Your task to perform on an android device: Open wifi settings Image 0: 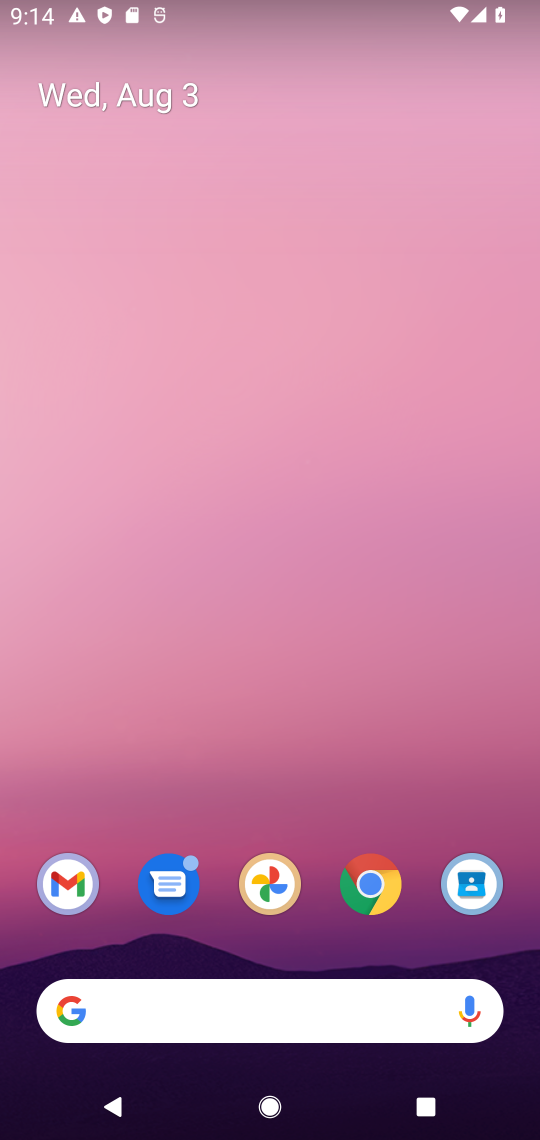
Step 0: press home button
Your task to perform on an android device: Open wifi settings Image 1: 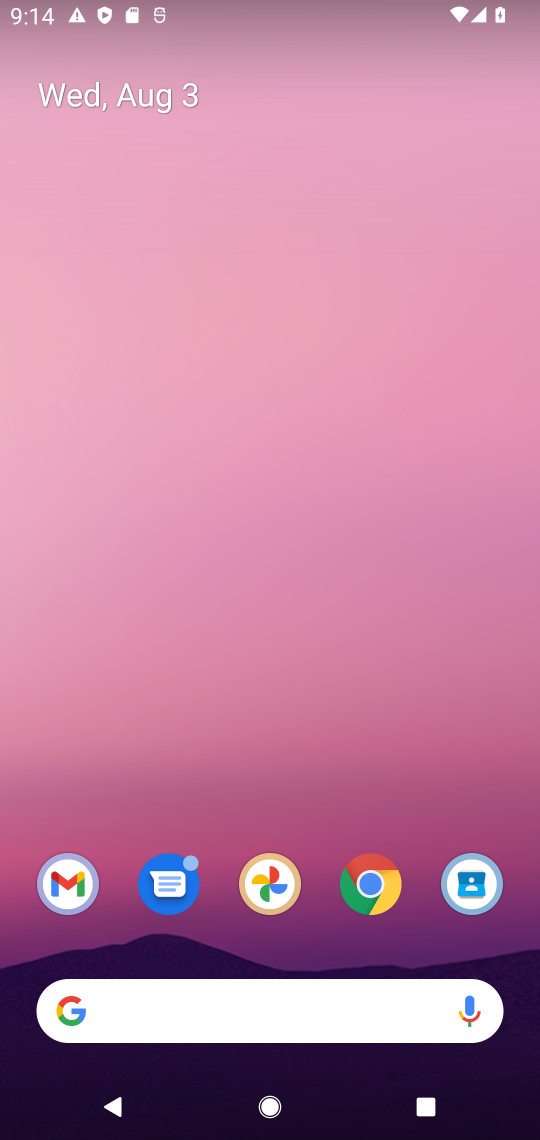
Step 1: drag from (482, 40) to (371, 1106)
Your task to perform on an android device: Open wifi settings Image 2: 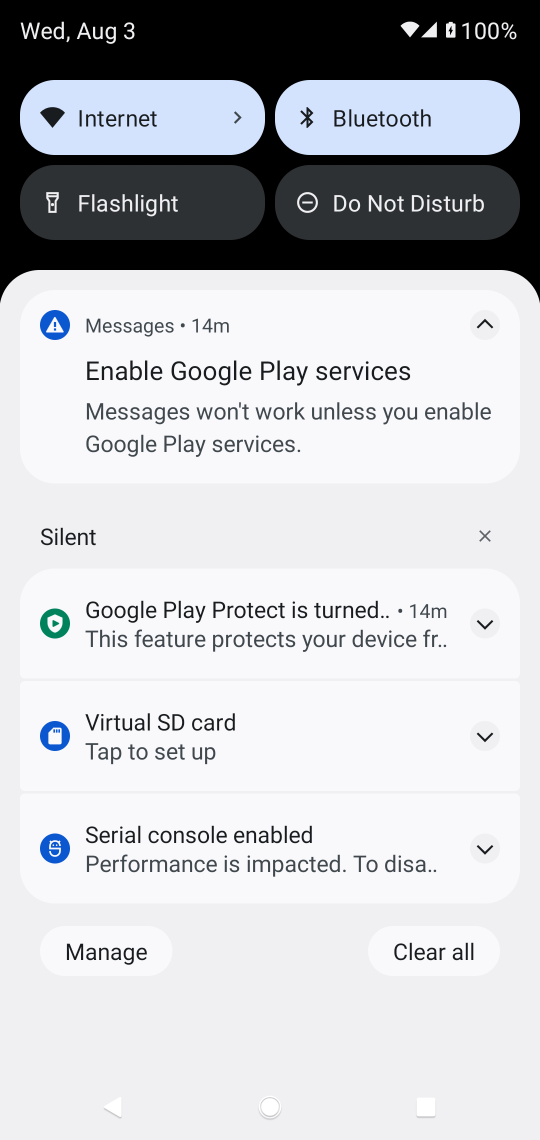
Step 2: click (243, 126)
Your task to perform on an android device: Open wifi settings Image 3: 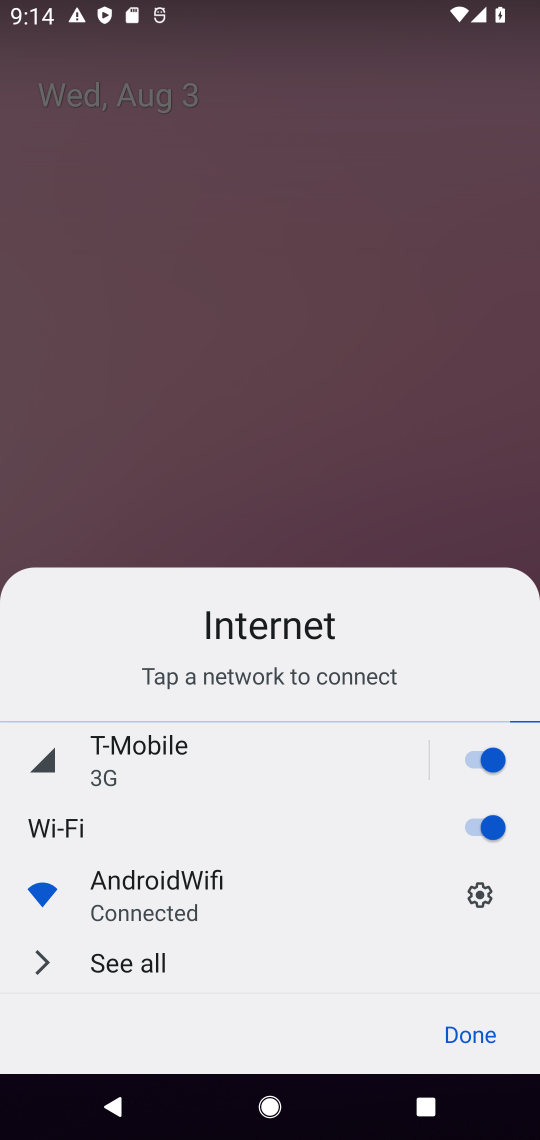
Step 3: click (470, 898)
Your task to perform on an android device: Open wifi settings Image 4: 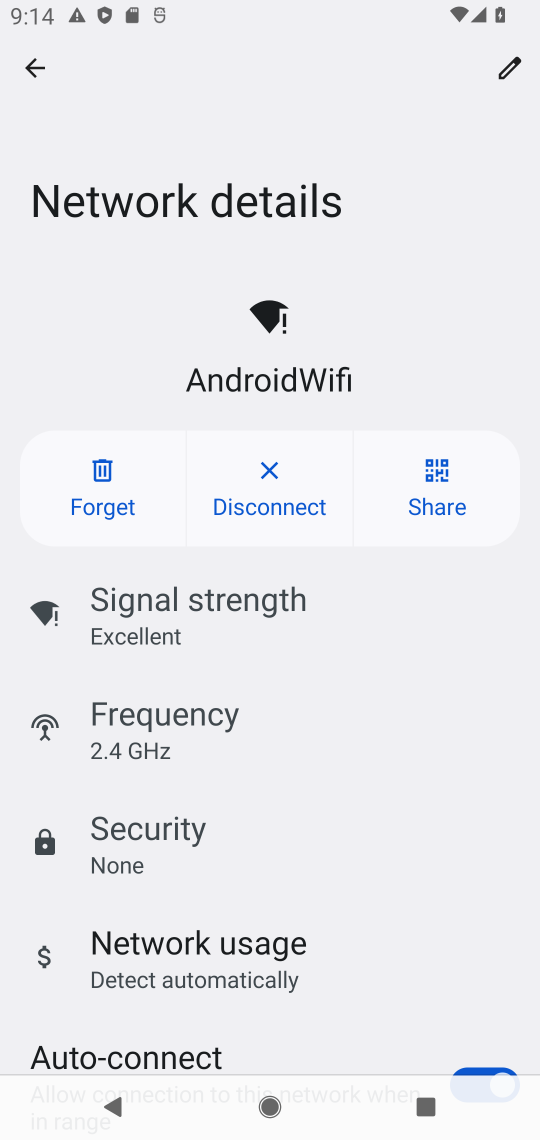
Step 4: task complete